Your task to perform on an android device: Is it going to rain tomorrow? Image 0: 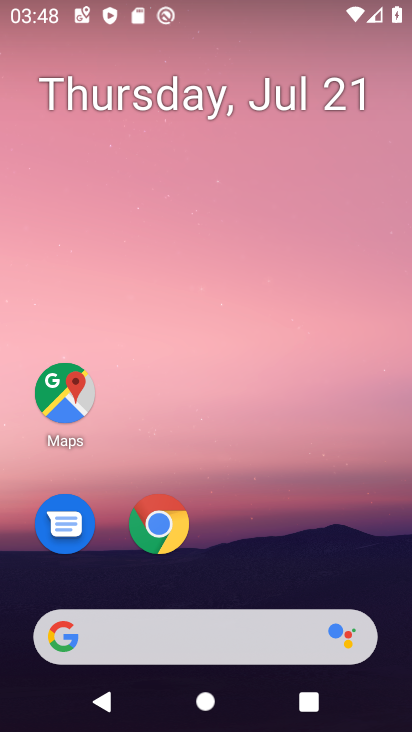
Step 0: click (175, 645)
Your task to perform on an android device: Is it going to rain tomorrow? Image 1: 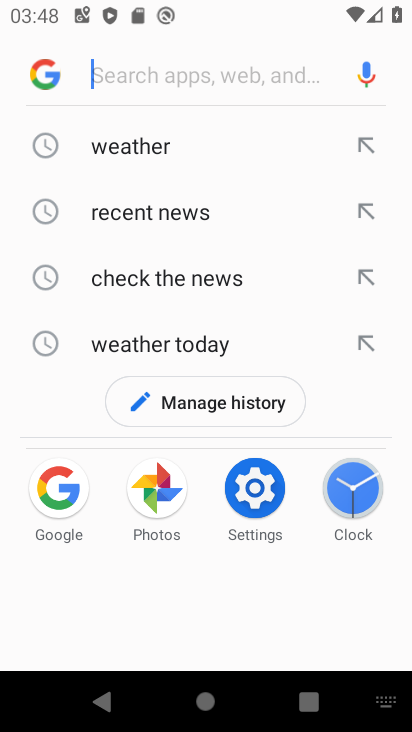
Step 1: click (148, 138)
Your task to perform on an android device: Is it going to rain tomorrow? Image 2: 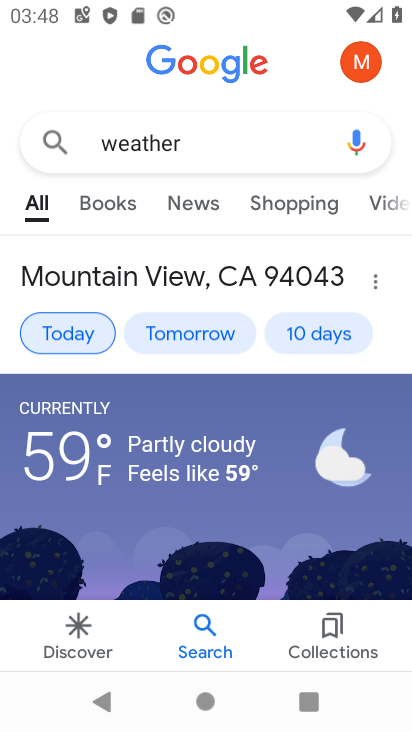
Step 2: click (204, 335)
Your task to perform on an android device: Is it going to rain tomorrow? Image 3: 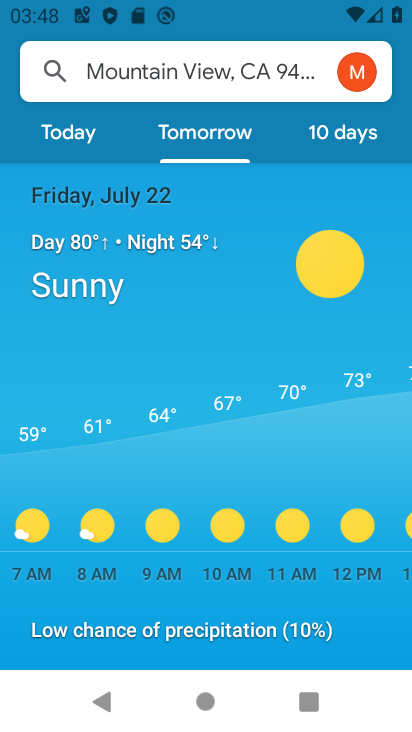
Step 3: task complete